Your task to perform on an android device: Search for vegetarian restaurants on Maps Image 0: 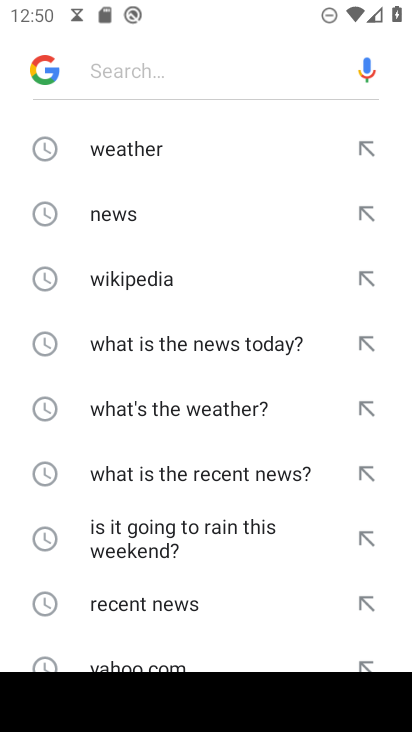
Step 0: press home button
Your task to perform on an android device: Search for vegetarian restaurants on Maps Image 1: 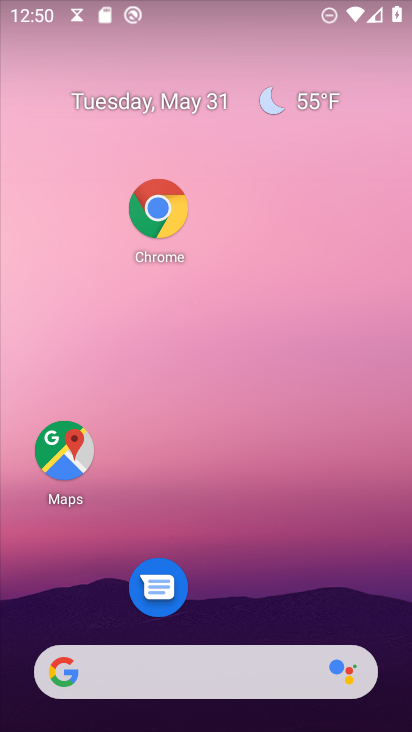
Step 1: click (93, 448)
Your task to perform on an android device: Search for vegetarian restaurants on Maps Image 2: 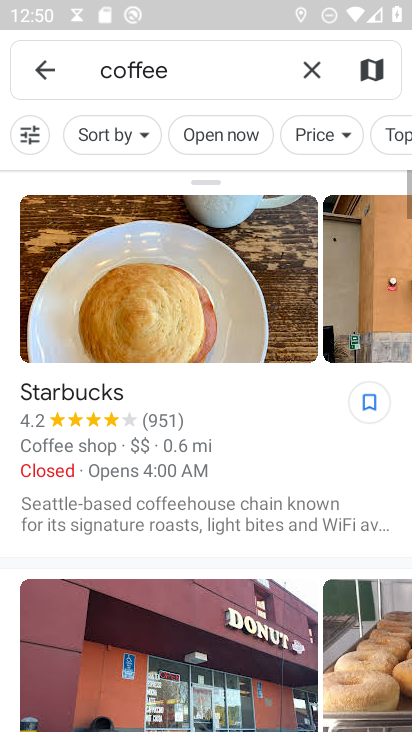
Step 2: click (304, 73)
Your task to perform on an android device: Search for vegetarian restaurants on Maps Image 3: 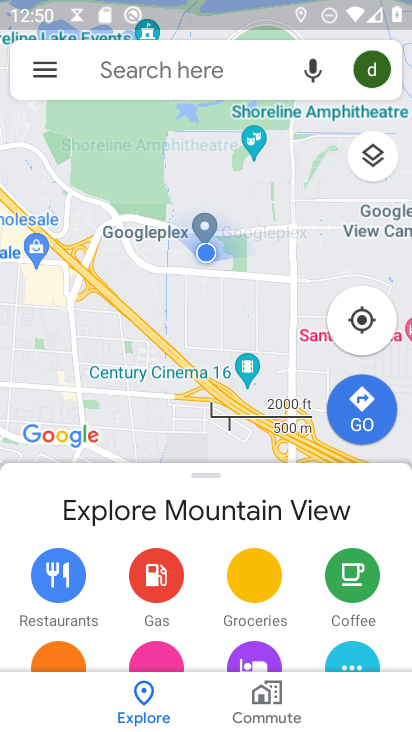
Step 3: click (243, 66)
Your task to perform on an android device: Search for vegetarian restaurants on Maps Image 4: 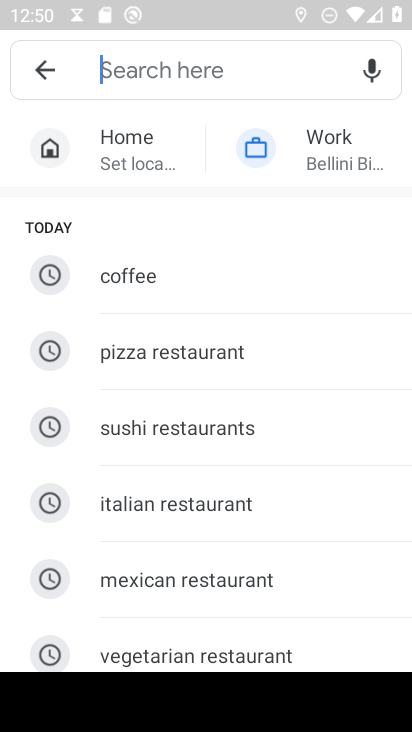
Step 4: click (174, 644)
Your task to perform on an android device: Search for vegetarian restaurants on Maps Image 5: 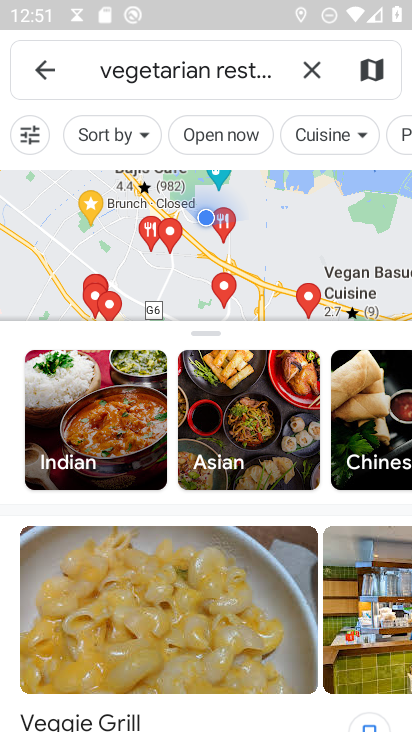
Step 5: drag from (174, 644) to (196, 199)
Your task to perform on an android device: Search for vegetarian restaurants on Maps Image 6: 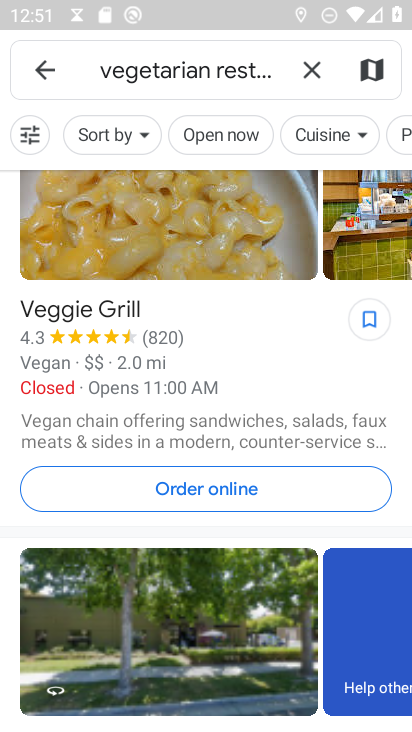
Step 6: drag from (167, 652) to (199, 337)
Your task to perform on an android device: Search for vegetarian restaurants on Maps Image 7: 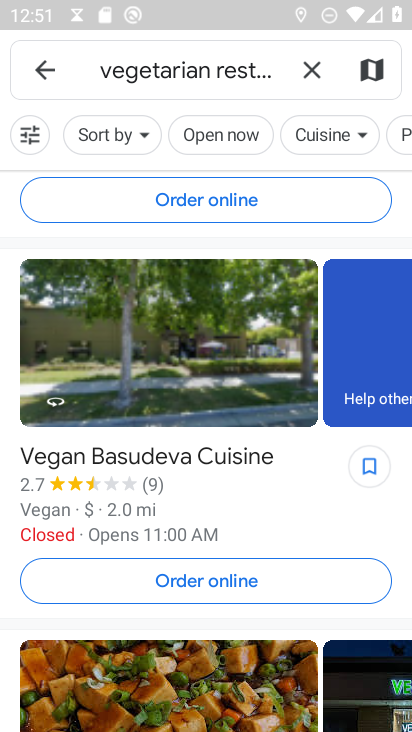
Step 7: drag from (158, 547) to (201, 249)
Your task to perform on an android device: Search for vegetarian restaurants on Maps Image 8: 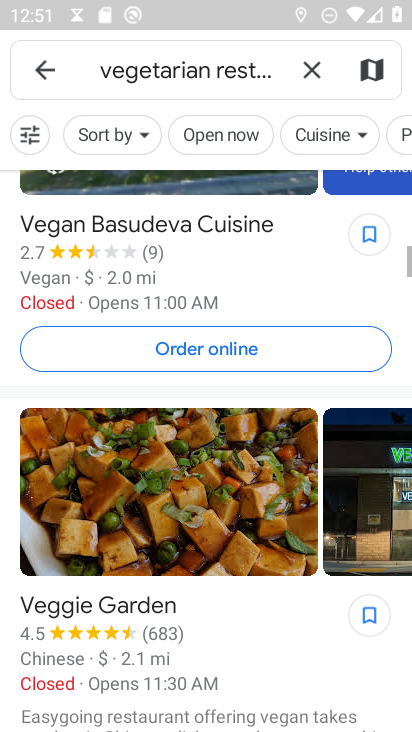
Step 8: drag from (183, 600) to (172, 252)
Your task to perform on an android device: Search for vegetarian restaurants on Maps Image 9: 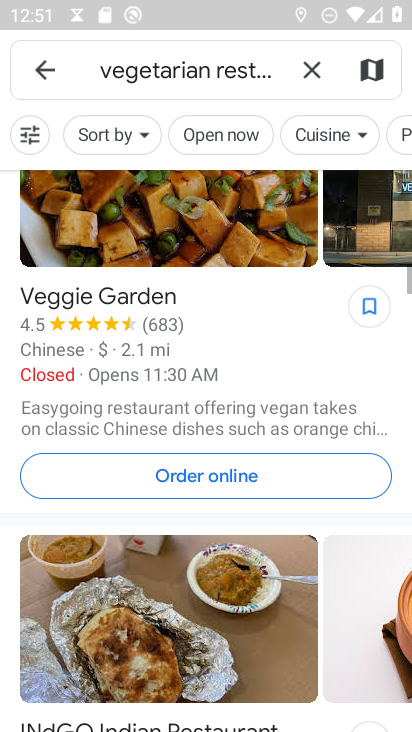
Step 9: drag from (145, 590) to (171, 233)
Your task to perform on an android device: Search for vegetarian restaurants on Maps Image 10: 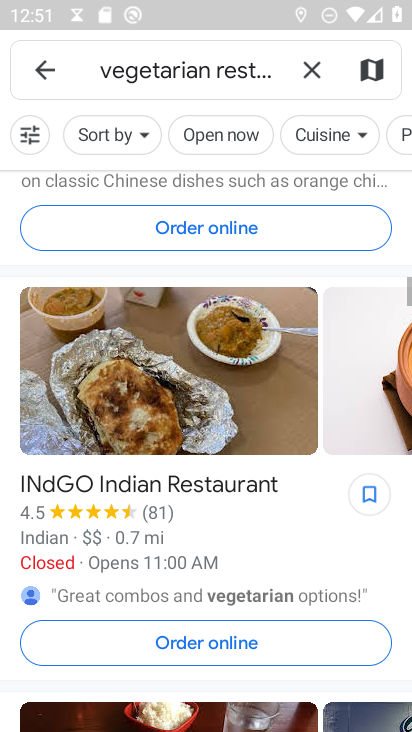
Step 10: drag from (132, 676) to (151, 447)
Your task to perform on an android device: Search for vegetarian restaurants on Maps Image 11: 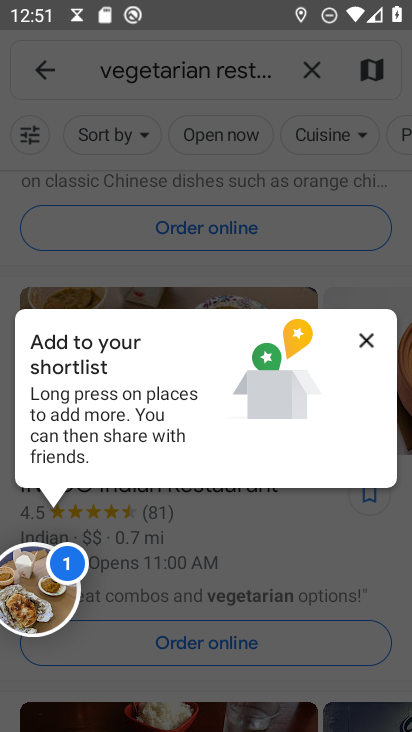
Step 11: click (366, 339)
Your task to perform on an android device: Search for vegetarian restaurants on Maps Image 12: 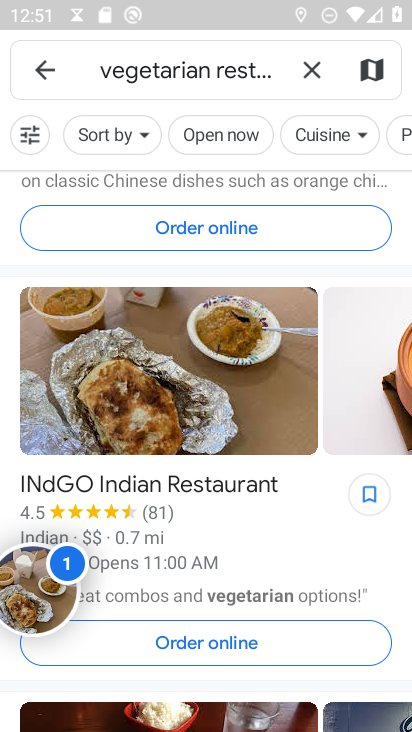
Step 12: drag from (295, 586) to (289, 143)
Your task to perform on an android device: Search for vegetarian restaurants on Maps Image 13: 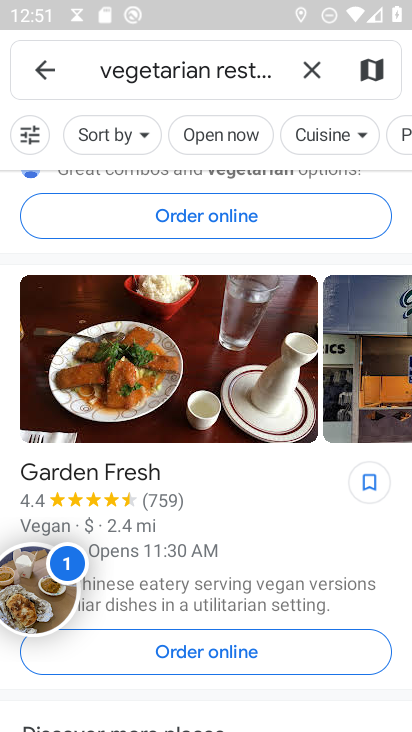
Step 13: drag from (269, 561) to (241, 223)
Your task to perform on an android device: Search for vegetarian restaurants on Maps Image 14: 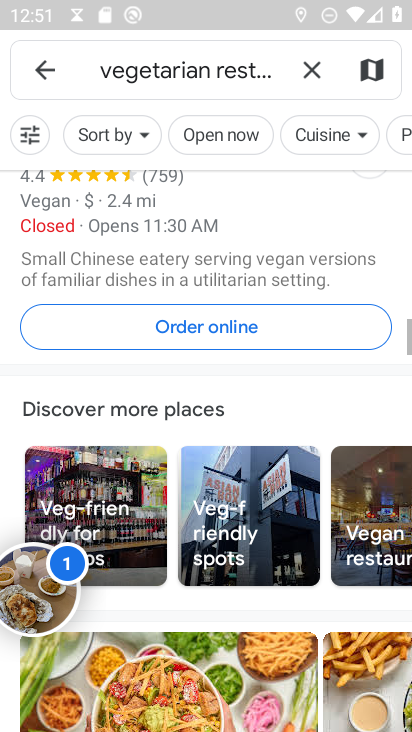
Step 14: click (184, 664)
Your task to perform on an android device: Search for vegetarian restaurants on Maps Image 15: 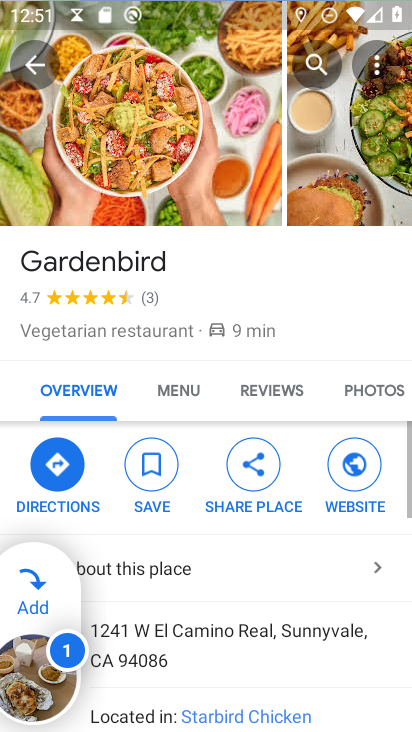
Step 15: task complete